Your task to perform on an android device: Turn on the flashlight Image 0: 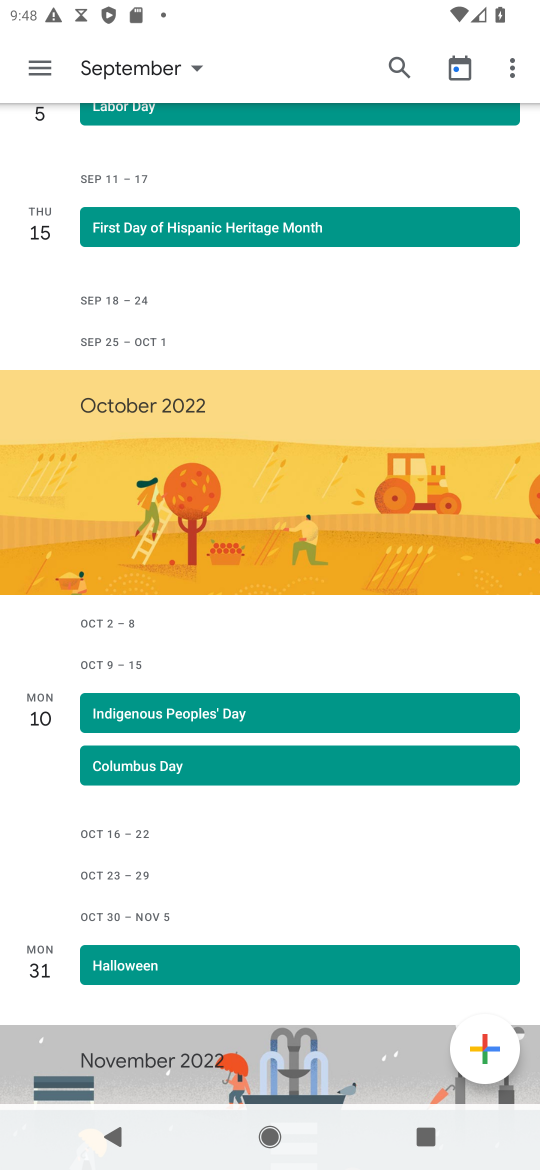
Step 0: press home button
Your task to perform on an android device: Turn on the flashlight Image 1: 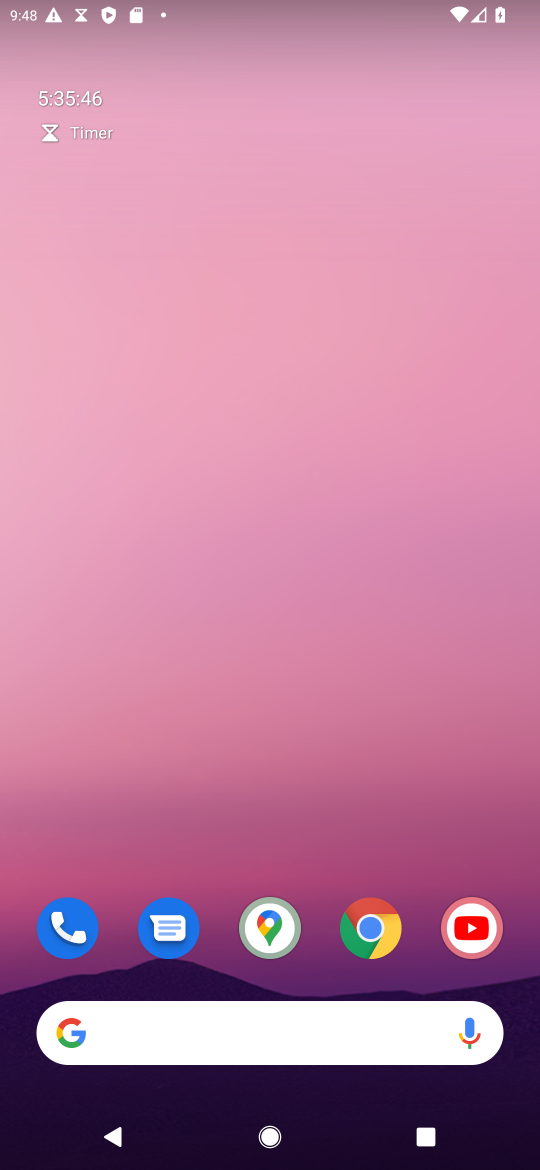
Step 1: drag from (324, 10) to (267, 768)
Your task to perform on an android device: Turn on the flashlight Image 2: 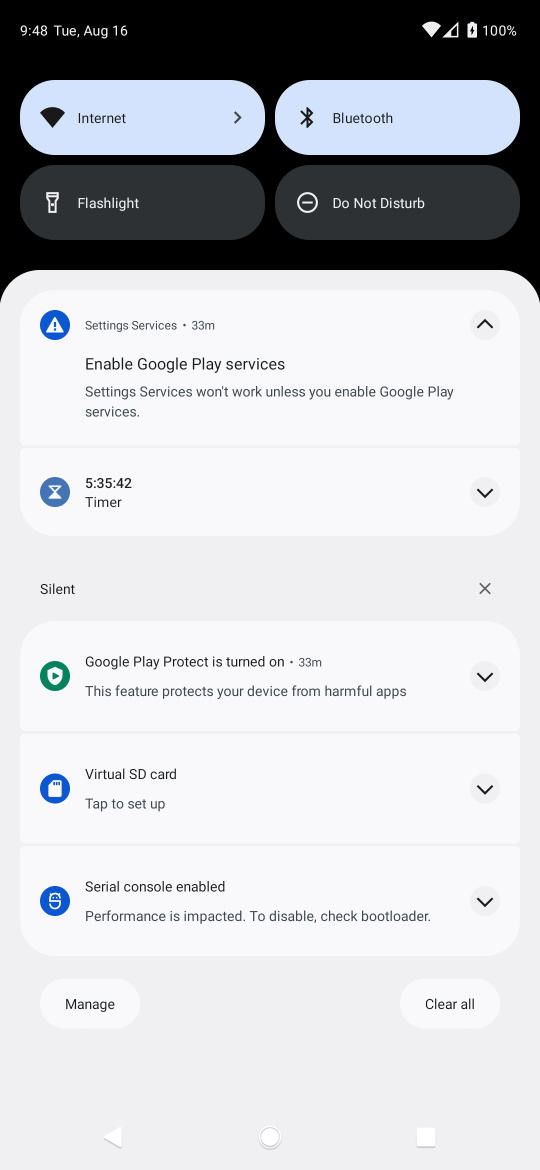
Step 2: click (177, 192)
Your task to perform on an android device: Turn on the flashlight Image 3: 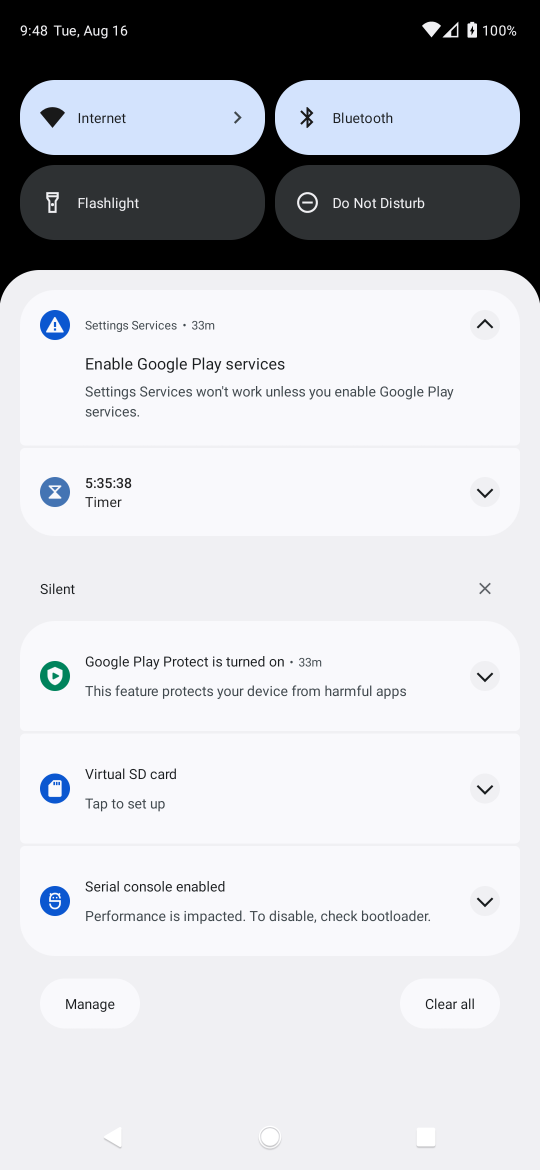
Step 3: task complete